Your task to perform on an android device: show emergency info Image 0: 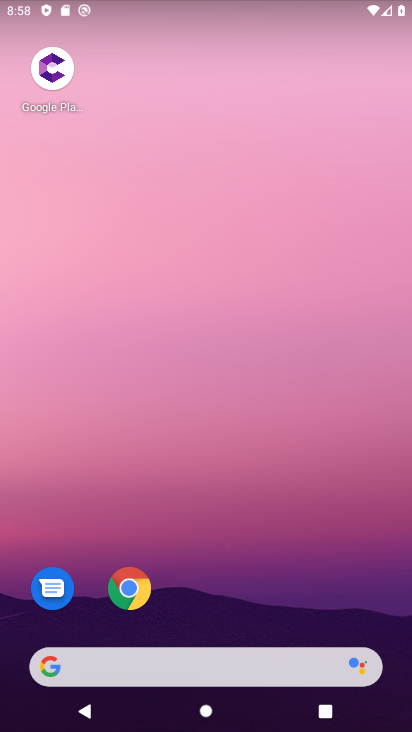
Step 0: drag from (190, 660) to (187, 196)
Your task to perform on an android device: show emergency info Image 1: 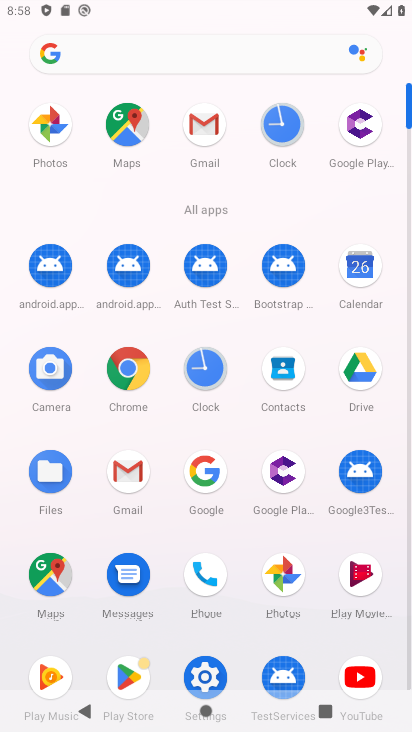
Step 1: click (196, 679)
Your task to perform on an android device: show emergency info Image 2: 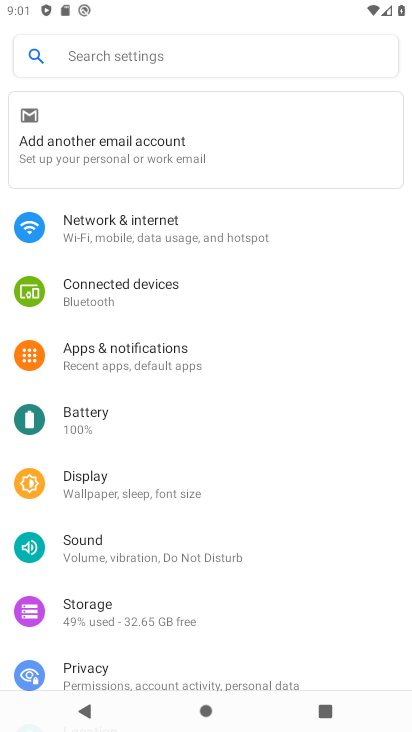
Step 2: drag from (217, 686) to (216, 228)
Your task to perform on an android device: show emergency info Image 3: 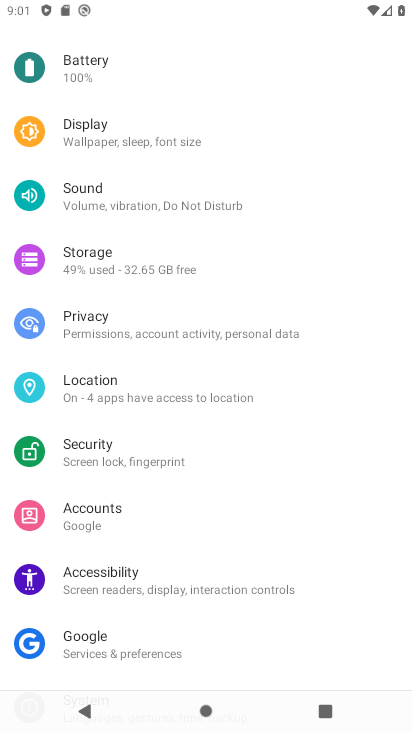
Step 3: drag from (135, 639) to (204, 245)
Your task to perform on an android device: show emergency info Image 4: 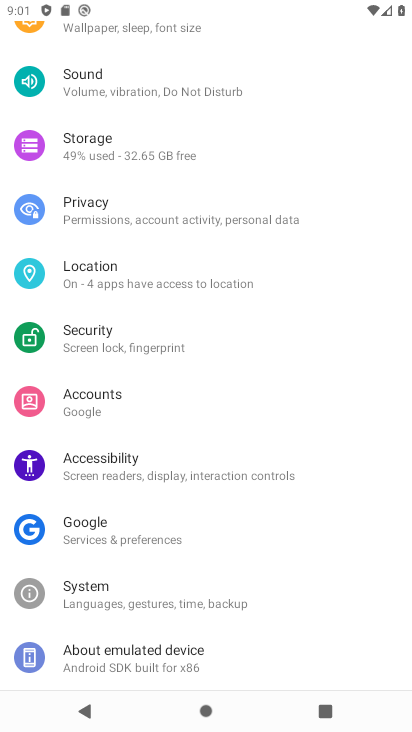
Step 4: click (174, 662)
Your task to perform on an android device: show emergency info Image 5: 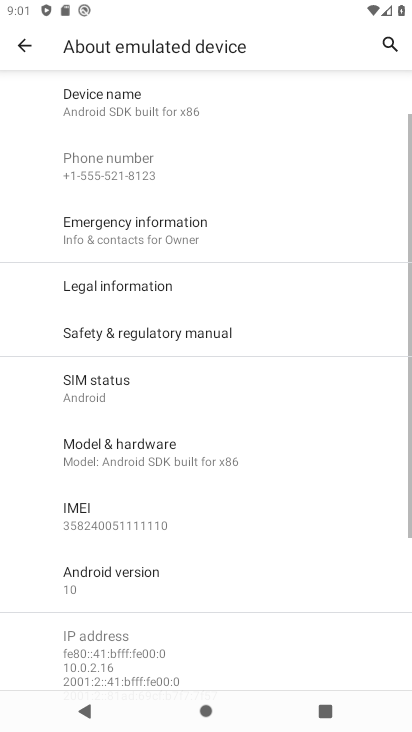
Step 5: drag from (136, 661) to (173, 348)
Your task to perform on an android device: show emergency info Image 6: 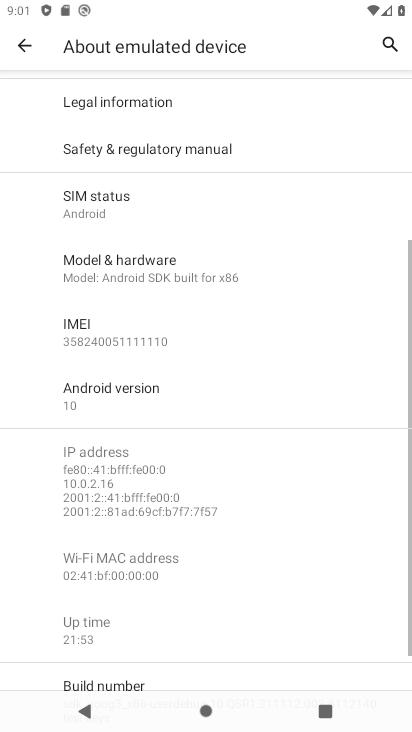
Step 6: drag from (162, 198) to (174, 506)
Your task to perform on an android device: show emergency info Image 7: 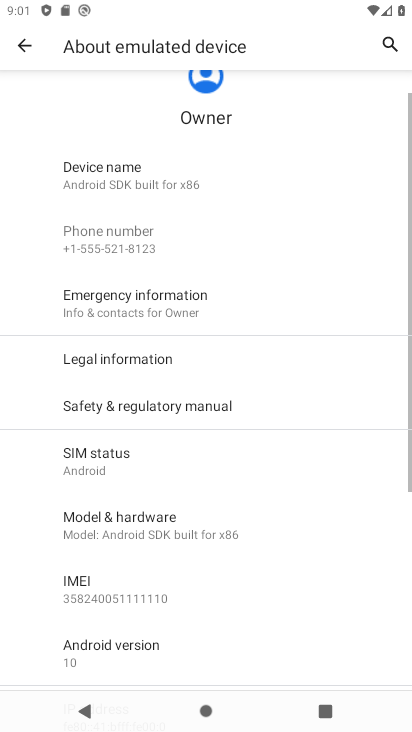
Step 7: click (167, 308)
Your task to perform on an android device: show emergency info Image 8: 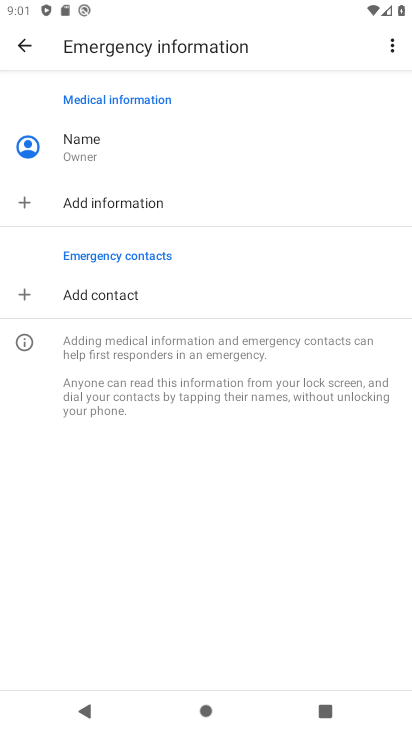
Step 8: task complete